Your task to perform on an android device: Open display settings Image 0: 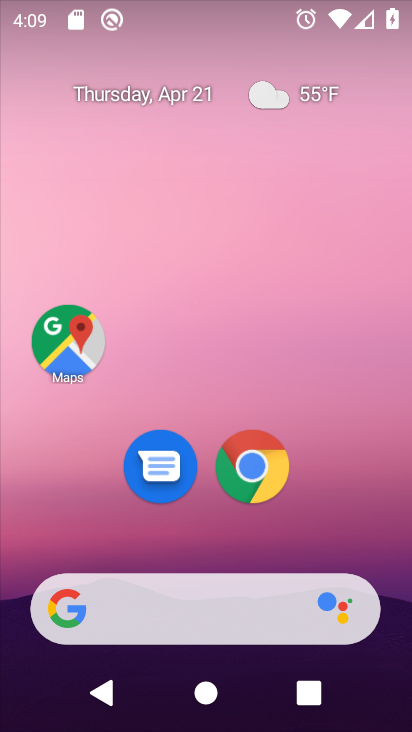
Step 0: drag from (211, 550) to (194, 63)
Your task to perform on an android device: Open display settings Image 1: 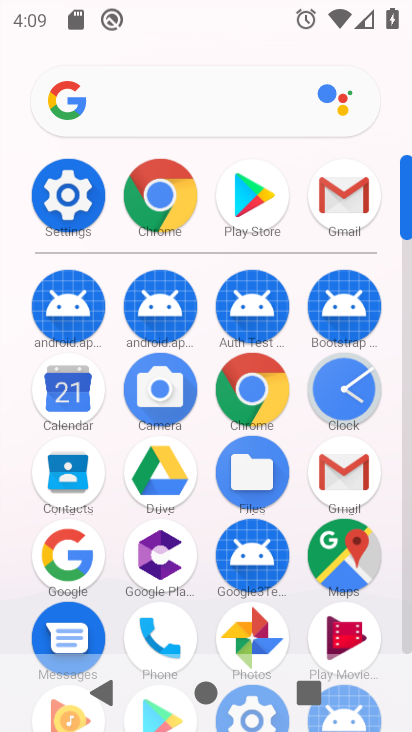
Step 1: click (77, 182)
Your task to perform on an android device: Open display settings Image 2: 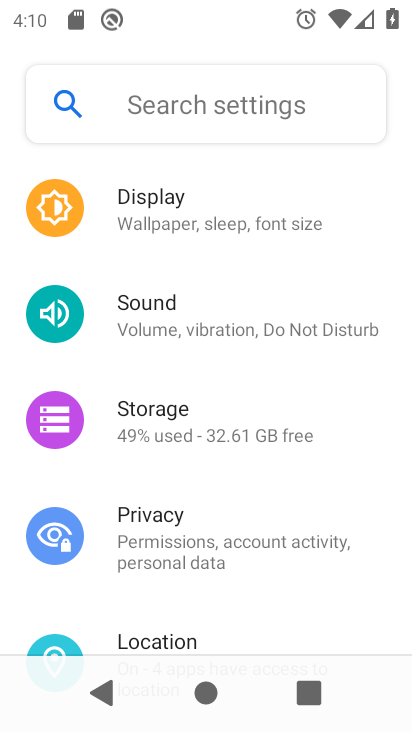
Step 2: click (192, 214)
Your task to perform on an android device: Open display settings Image 3: 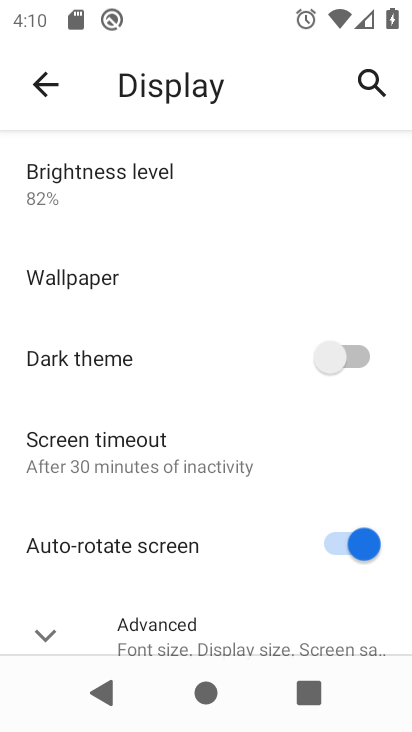
Step 3: task complete